Your task to perform on an android device: Open Google Chrome and click the shortcut for Amazon.com Image 0: 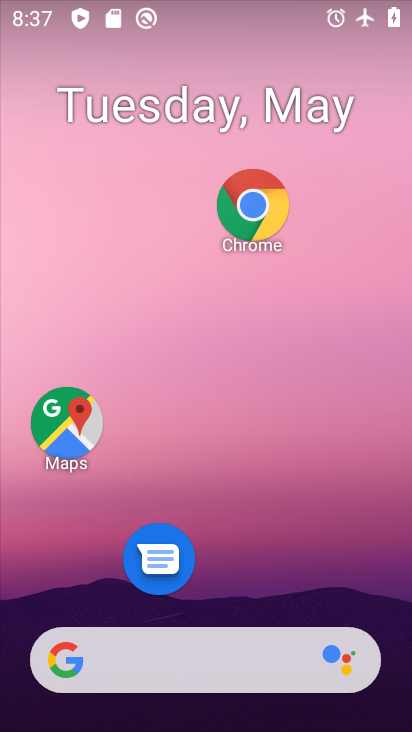
Step 0: click (260, 209)
Your task to perform on an android device: Open Google Chrome and click the shortcut for Amazon.com Image 1: 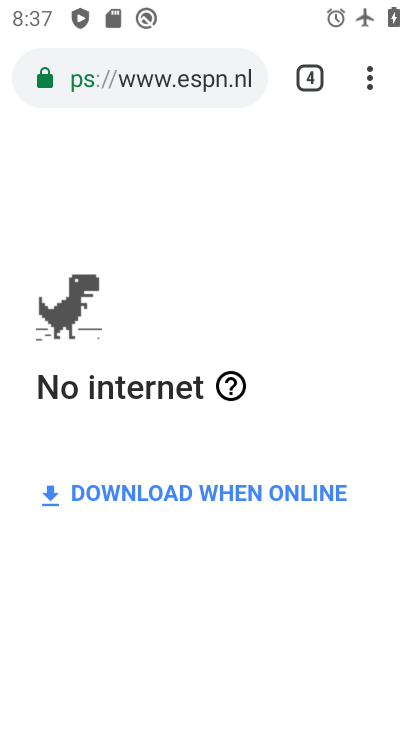
Step 1: click (304, 62)
Your task to perform on an android device: Open Google Chrome and click the shortcut for Amazon.com Image 2: 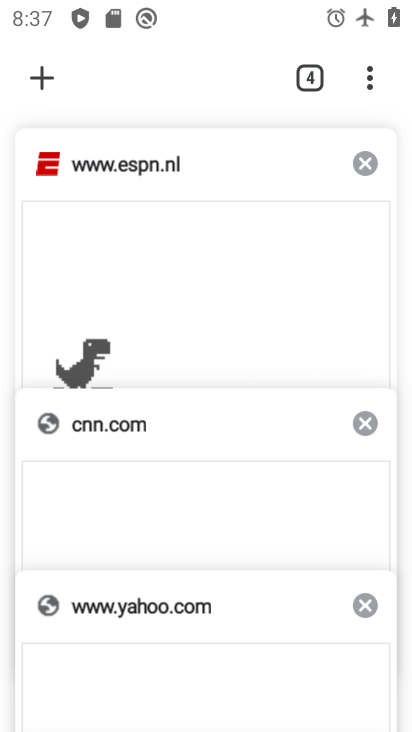
Step 2: click (49, 72)
Your task to perform on an android device: Open Google Chrome and click the shortcut for Amazon.com Image 3: 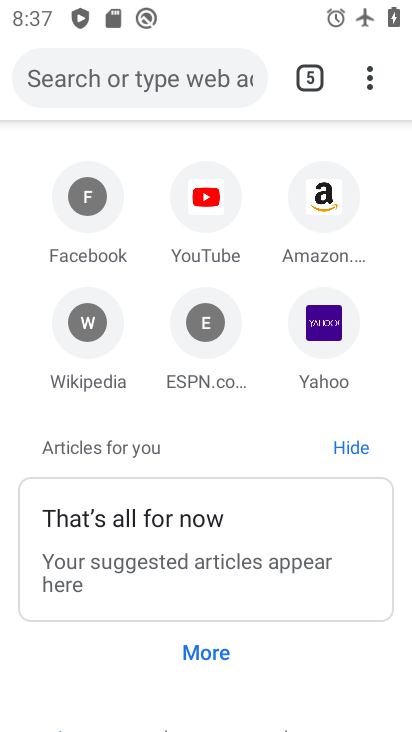
Step 3: click (330, 209)
Your task to perform on an android device: Open Google Chrome and click the shortcut for Amazon.com Image 4: 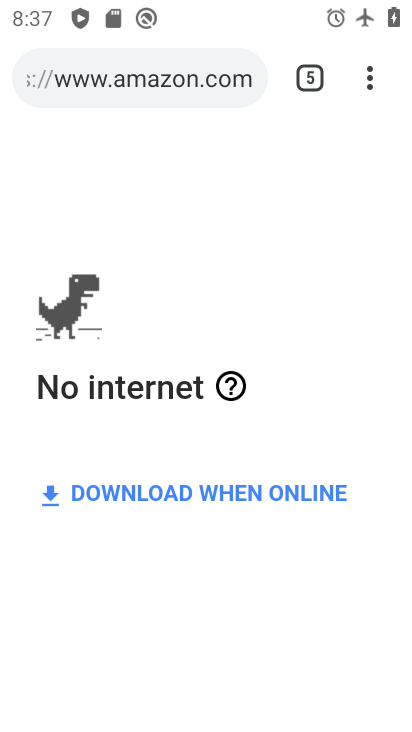
Step 4: task complete